Your task to perform on an android device: Open the map Image 0: 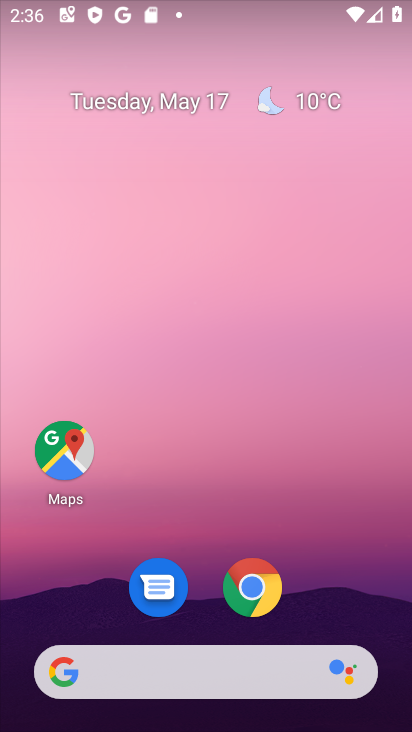
Step 0: drag from (332, 600) to (209, 5)
Your task to perform on an android device: Open the map Image 1: 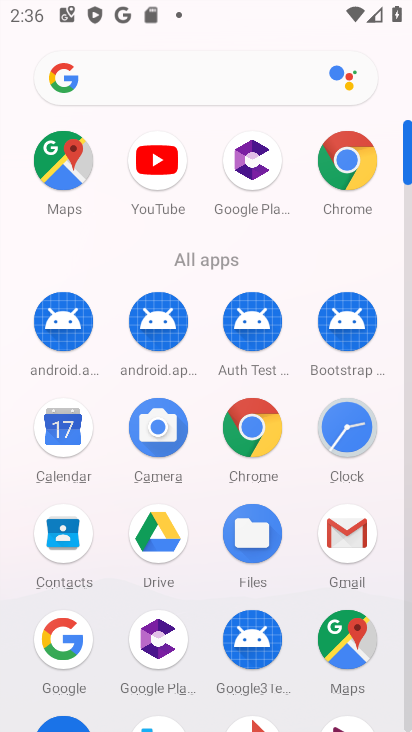
Step 1: click (345, 638)
Your task to perform on an android device: Open the map Image 2: 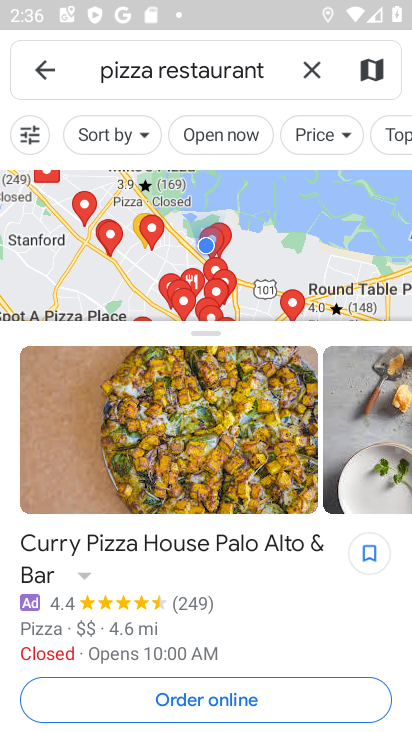
Step 2: click (319, 56)
Your task to perform on an android device: Open the map Image 3: 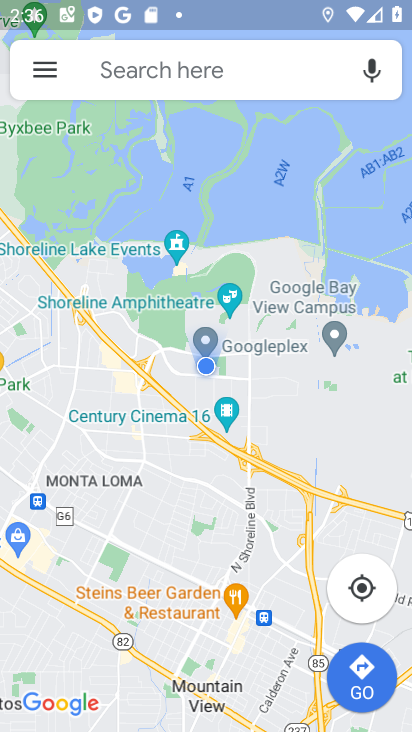
Step 3: task complete